Your task to perform on an android device: see tabs open on other devices in the chrome app Image 0: 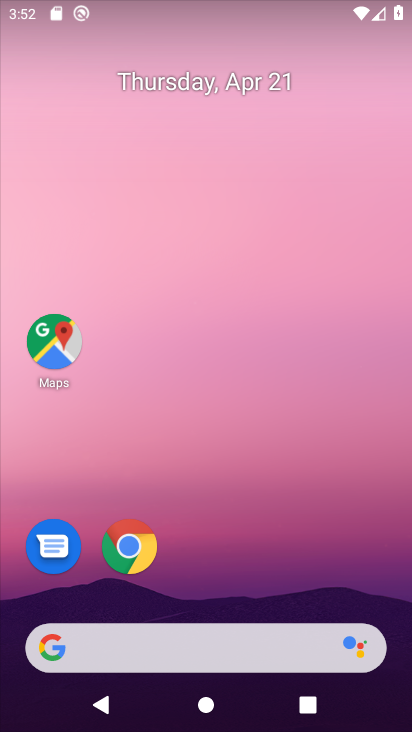
Step 0: click (146, 555)
Your task to perform on an android device: see tabs open on other devices in the chrome app Image 1: 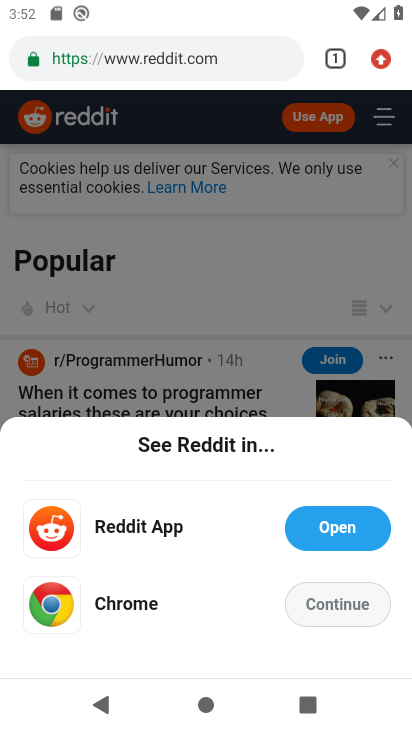
Step 1: click (383, 68)
Your task to perform on an android device: see tabs open on other devices in the chrome app Image 2: 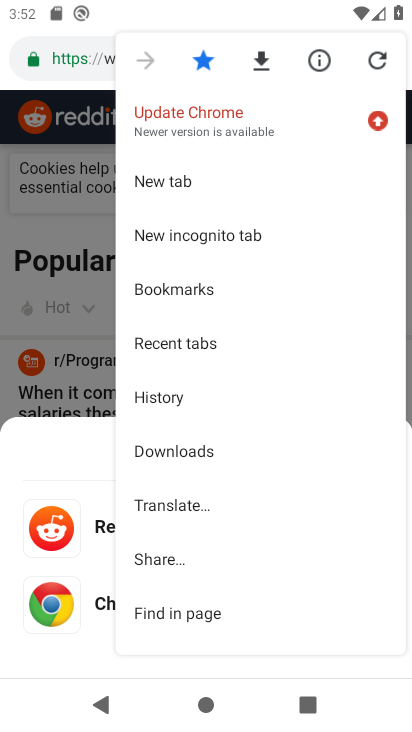
Step 2: click (187, 330)
Your task to perform on an android device: see tabs open on other devices in the chrome app Image 3: 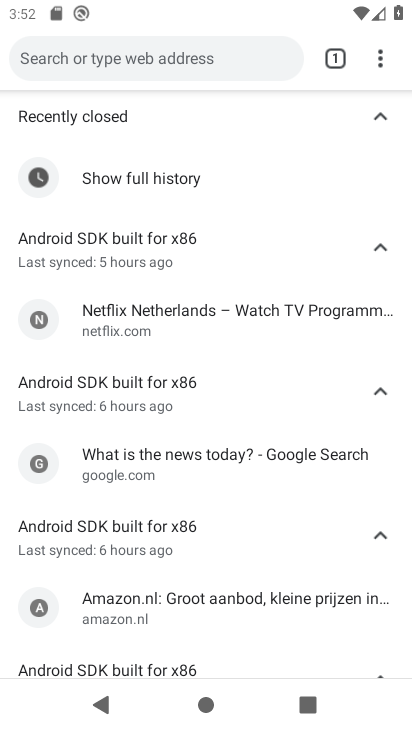
Step 3: task complete